Your task to perform on an android device: Search for vegetarian restaurants on Maps Image 0: 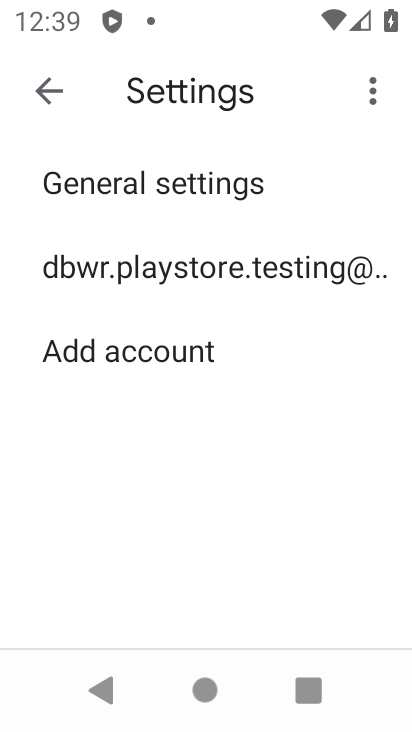
Step 0: press home button
Your task to perform on an android device: Search for vegetarian restaurants on Maps Image 1: 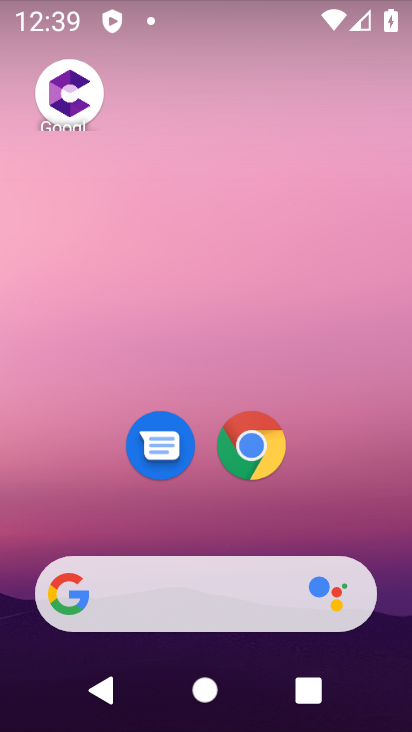
Step 1: drag from (394, 590) to (376, 107)
Your task to perform on an android device: Search for vegetarian restaurants on Maps Image 2: 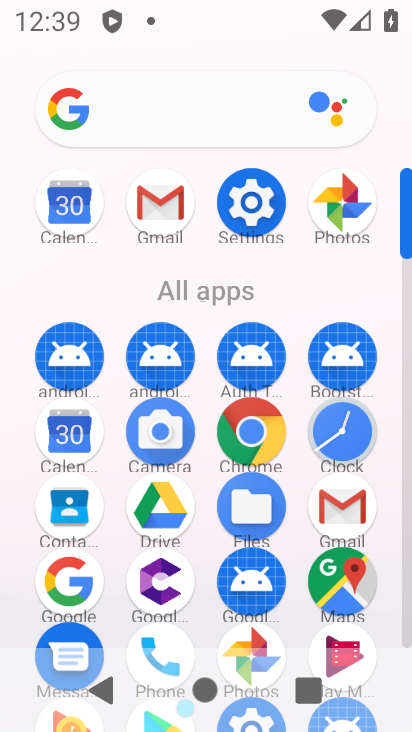
Step 2: click (342, 578)
Your task to perform on an android device: Search for vegetarian restaurants on Maps Image 3: 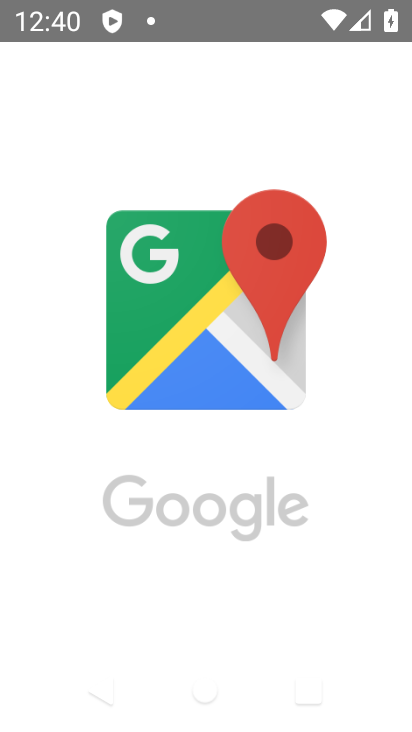
Step 3: press back button
Your task to perform on an android device: Search for vegetarian restaurants on Maps Image 4: 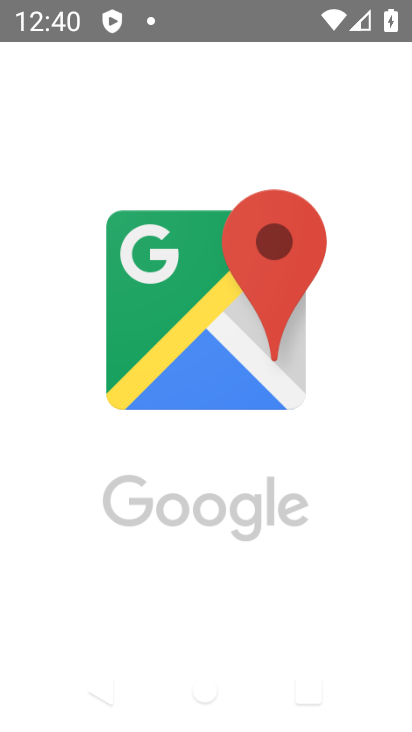
Step 4: press home button
Your task to perform on an android device: Search for vegetarian restaurants on Maps Image 5: 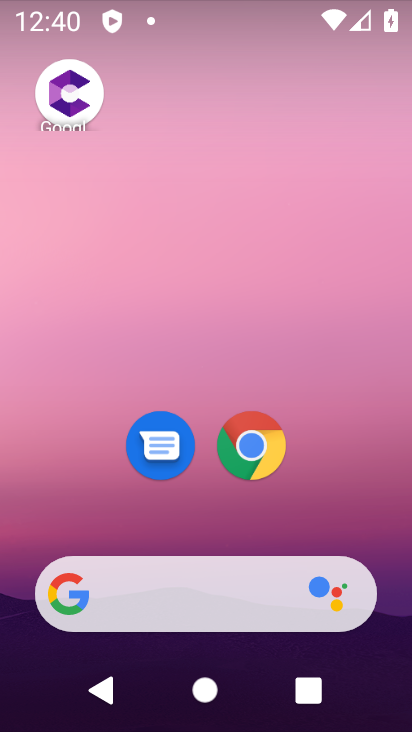
Step 5: drag from (391, 510) to (294, 102)
Your task to perform on an android device: Search for vegetarian restaurants on Maps Image 6: 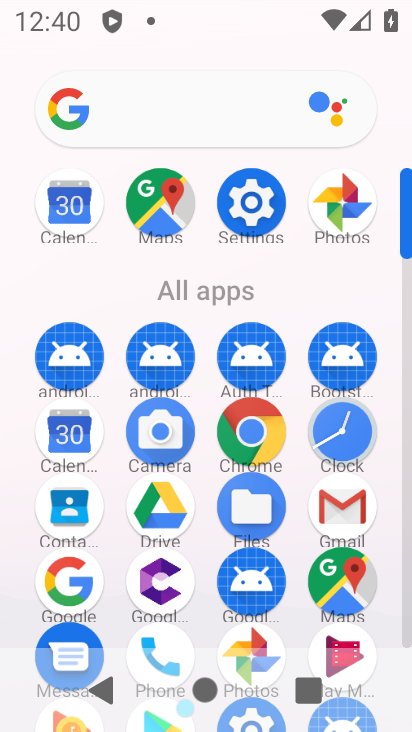
Step 6: click (345, 578)
Your task to perform on an android device: Search for vegetarian restaurants on Maps Image 7: 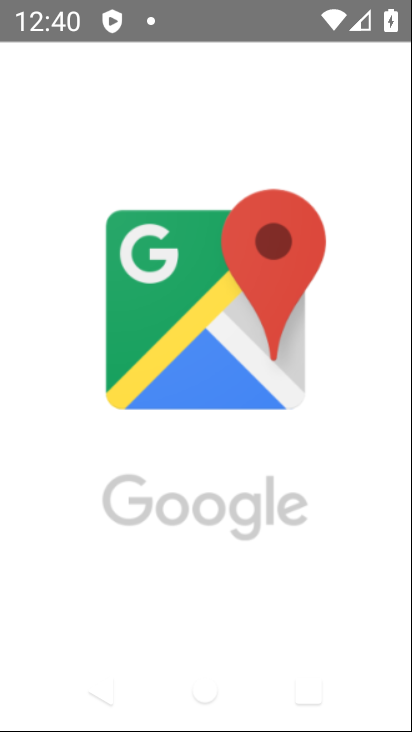
Step 7: task complete